Your task to perform on an android device: Do I have any events tomorrow? Image 0: 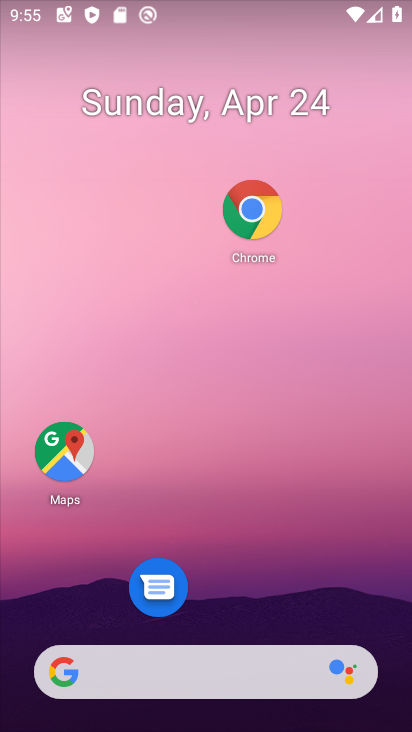
Step 0: drag from (198, 494) to (211, 57)
Your task to perform on an android device: Do I have any events tomorrow? Image 1: 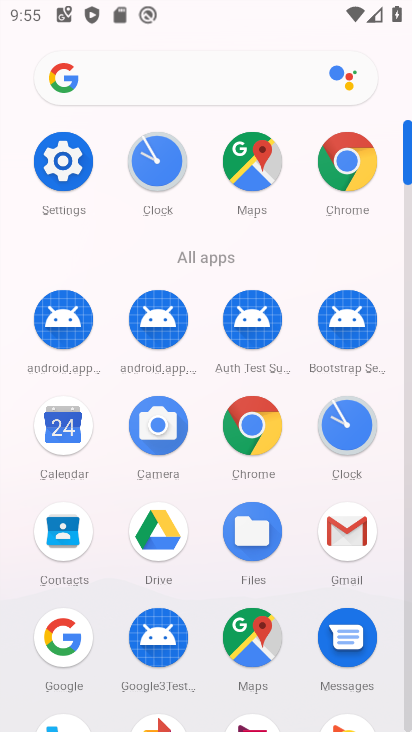
Step 1: click (62, 424)
Your task to perform on an android device: Do I have any events tomorrow? Image 2: 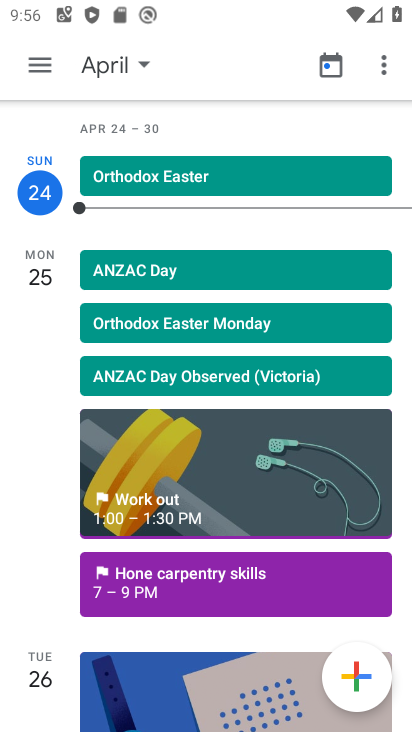
Step 2: click (52, 318)
Your task to perform on an android device: Do I have any events tomorrow? Image 3: 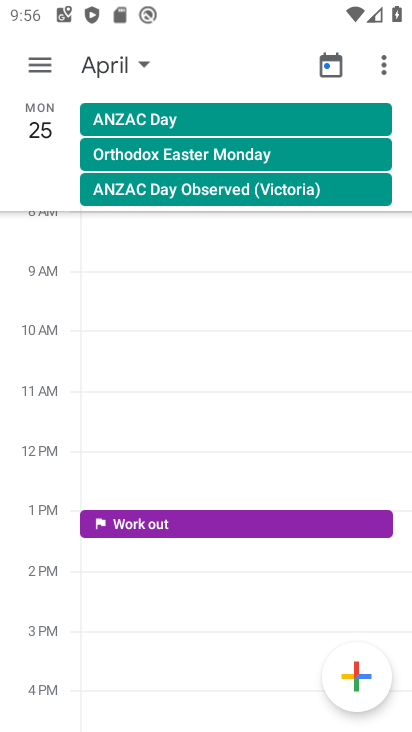
Step 3: task complete